Your task to perform on an android device: Open calendar and show me the fourth week of next month Image 0: 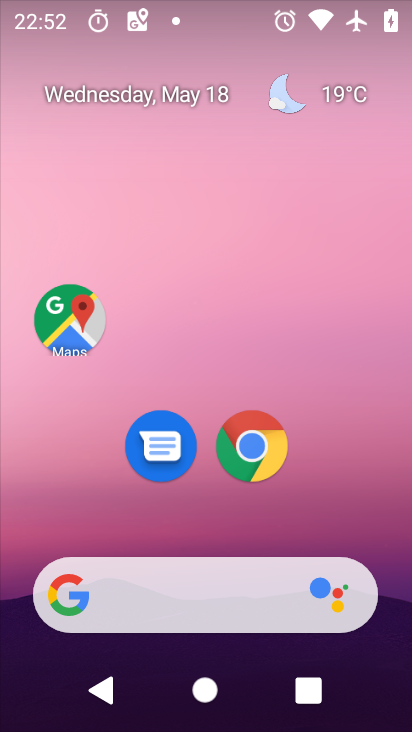
Step 0: press home button
Your task to perform on an android device: Open calendar and show me the fourth week of next month Image 1: 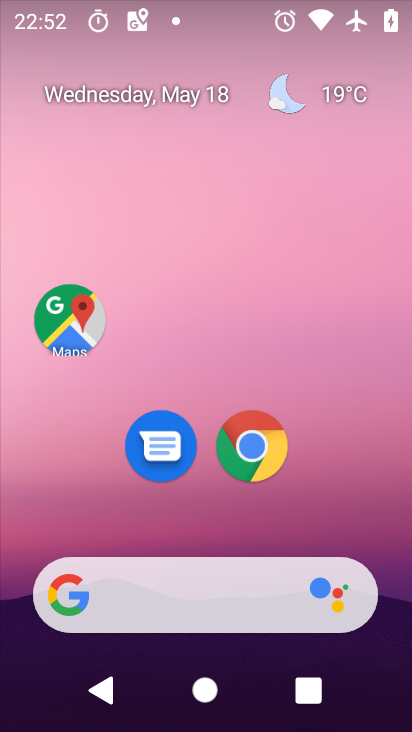
Step 1: drag from (214, 599) to (291, 191)
Your task to perform on an android device: Open calendar and show me the fourth week of next month Image 2: 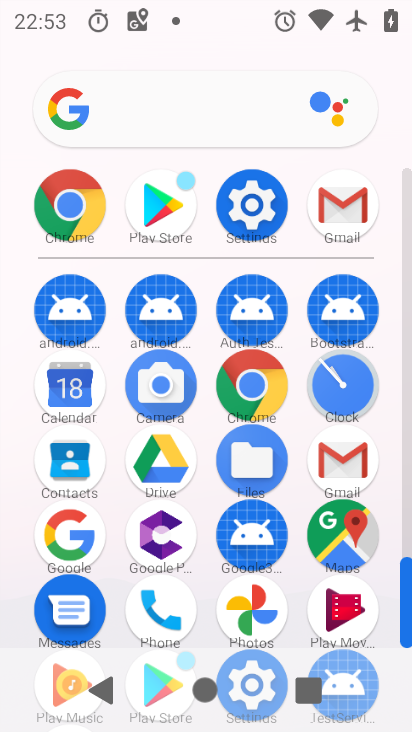
Step 2: click (67, 400)
Your task to perform on an android device: Open calendar and show me the fourth week of next month Image 3: 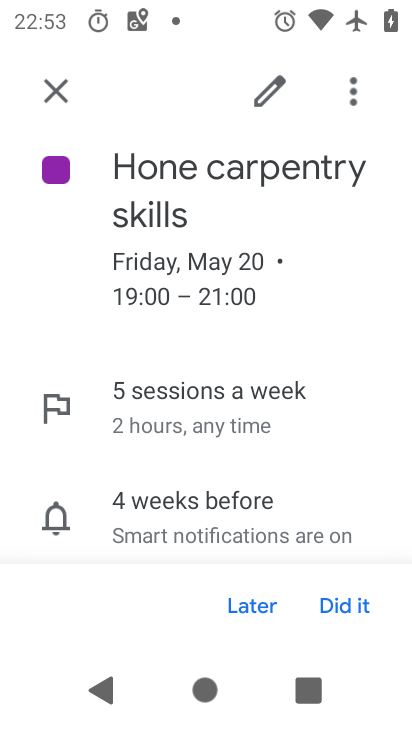
Step 3: click (59, 88)
Your task to perform on an android device: Open calendar and show me the fourth week of next month Image 4: 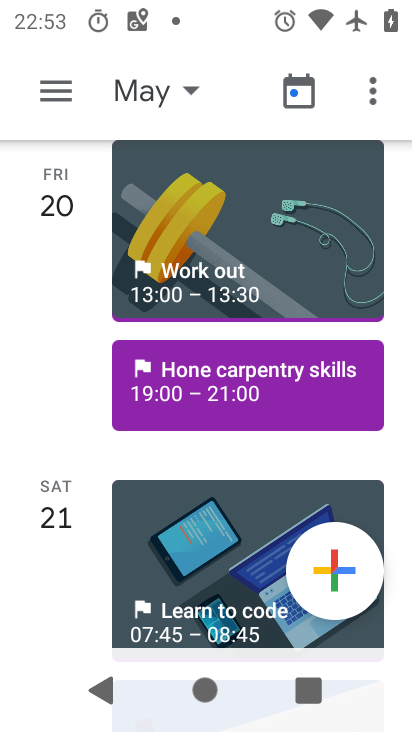
Step 4: click (131, 90)
Your task to perform on an android device: Open calendar and show me the fourth week of next month Image 5: 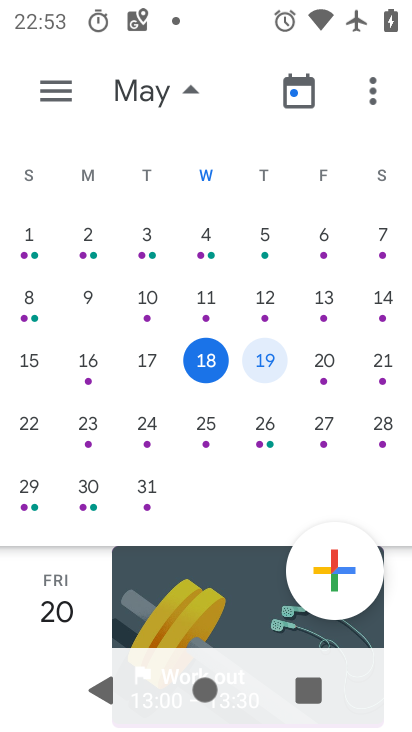
Step 5: drag from (360, 411) to (26, 357)
Your task to perform on an android device: Open calendar and show me the fourth week of next month Image 6: 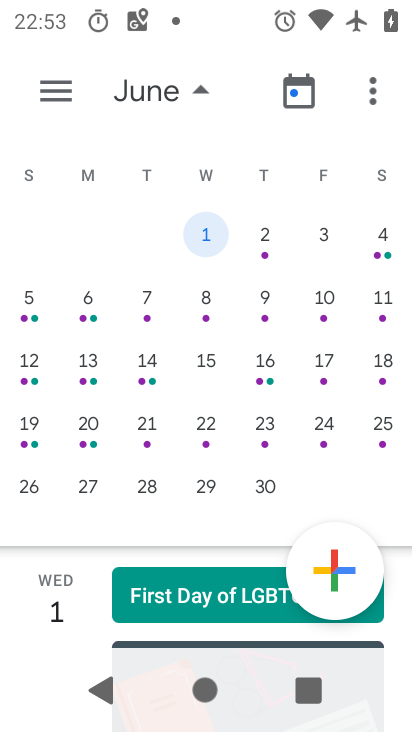
Step 6: click (32, 422)
Your task to perform on an android device: Open calendar and show me the fourth week of next month Image 7: 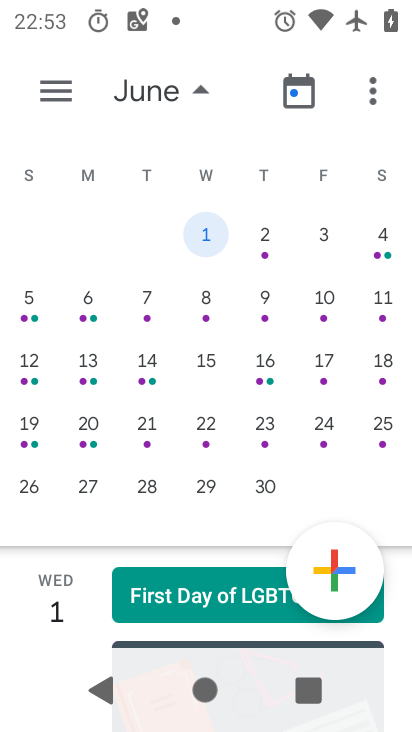
Step 7: click (43, 436)
Your task to perform on an android device: Open calendar and show me the fourth week of next month Image 8: 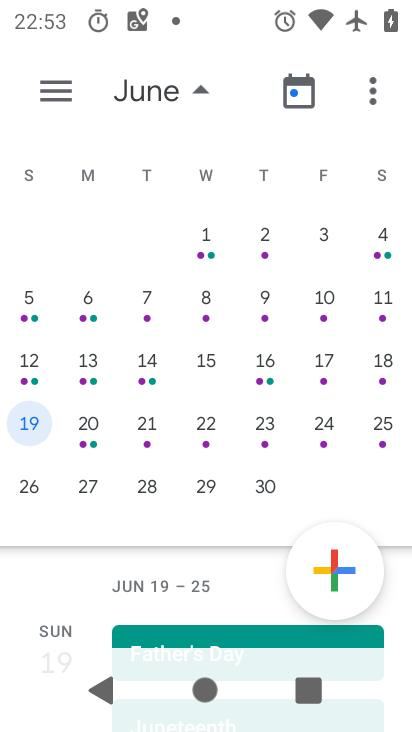
Step 8: click (57, 87)
Your task to perform on an android device: Open calendar and show me the fourth week of next month Image 9: 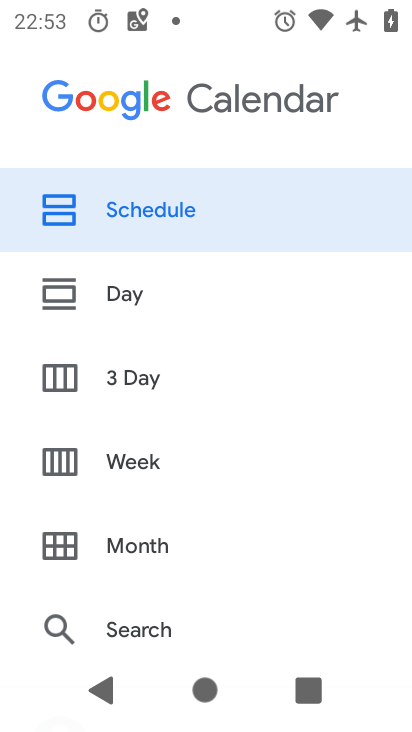
Step 9: click (126, 461)
Your task to perform on an android device: Open calendar and show me the fourth week of next month Image 10: 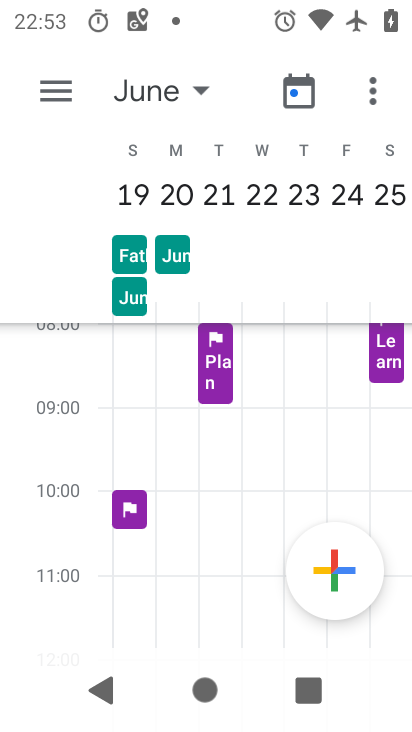
Step 10: task complete